Your task to perform on an android device: turn vacation reply on in the gmail app Image 0: 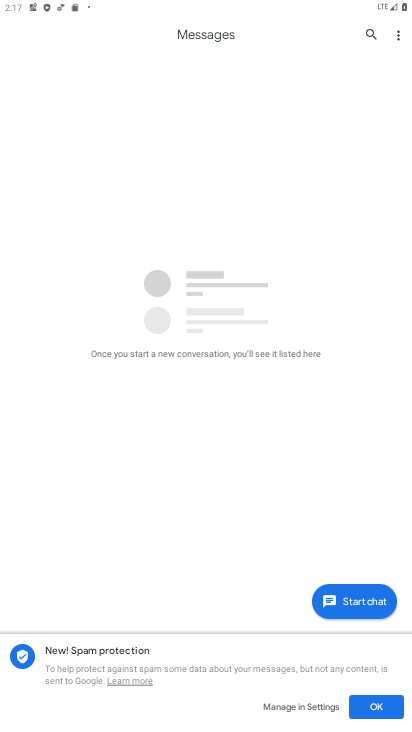
Step 0: press home button
Your task to perform on an android device: turn vacation reply on in the gmail app Image 1: 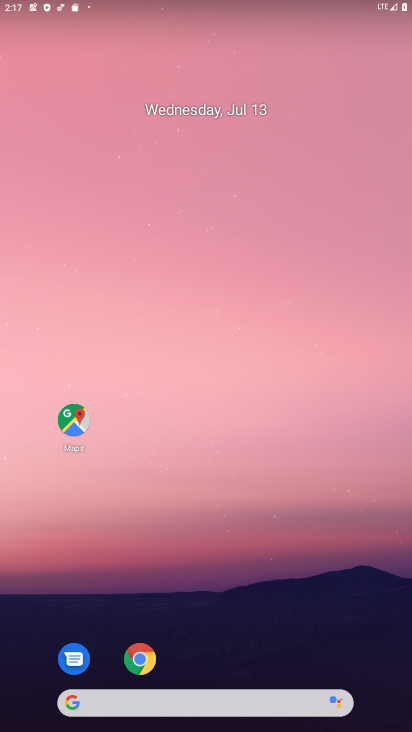
Step 1: drag from (273, 662) to (264, 451)
Your task to perform on an android device: turn vacation reply on in the gmail app Image 2: 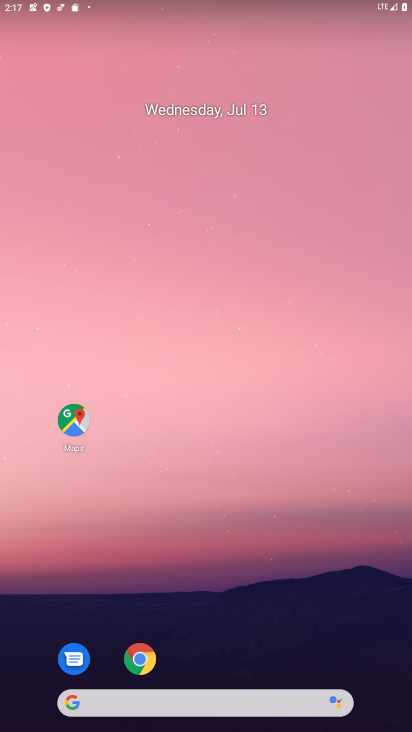
Step 2: drag from (241, 688) to (224, 46)
Your task to perform on an android device: turn vacation reply on in the gmail app Image 3: 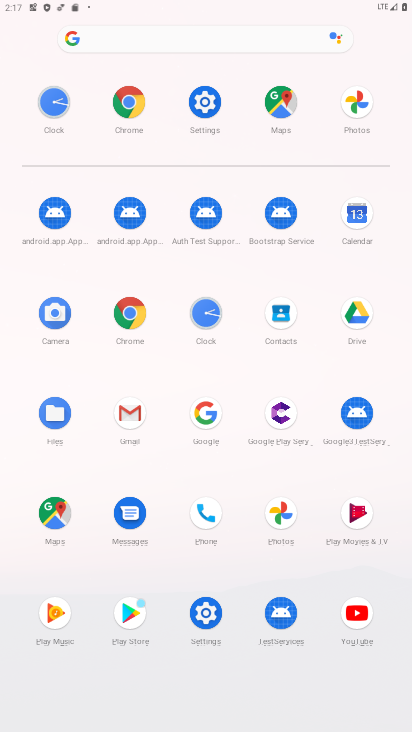
Step 3: click (127, 411)
Your task to perform on an android device: turn vacation reply on in the gmail app Image 4: 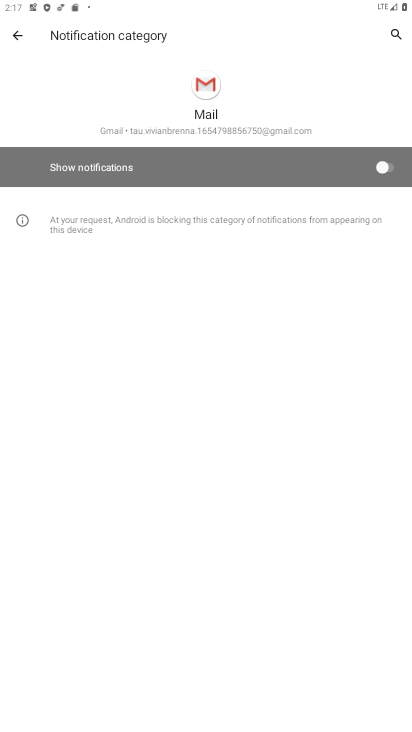
Step 4: press back button
Your task to perform on an android device: turn vacation reply on in the gmail app Image 5: 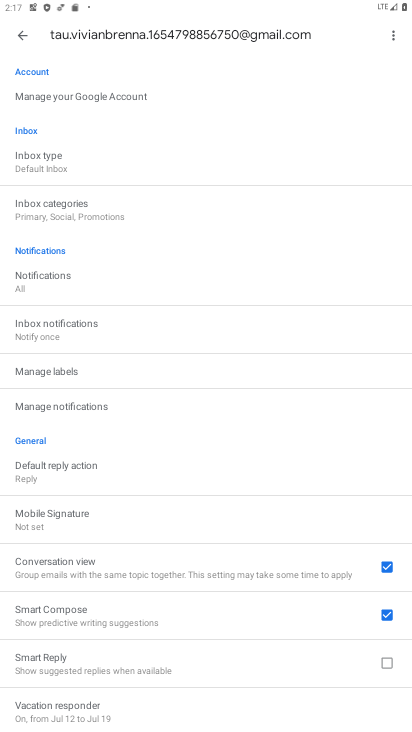
Step 5: drag from (313, 662) to (315, 577)
Your task to perform on an android device: turn vacation reply on in the gmail app Image 6: 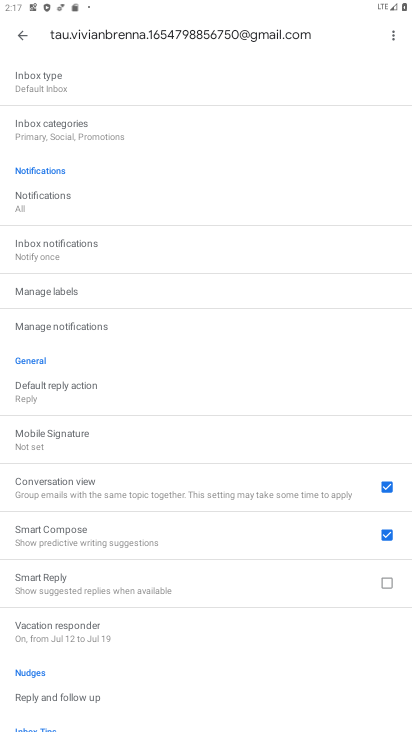
Step 6: click (66, 630)
Your task to perform on an android device: turn vacation reply on in the gmail app Image 7: 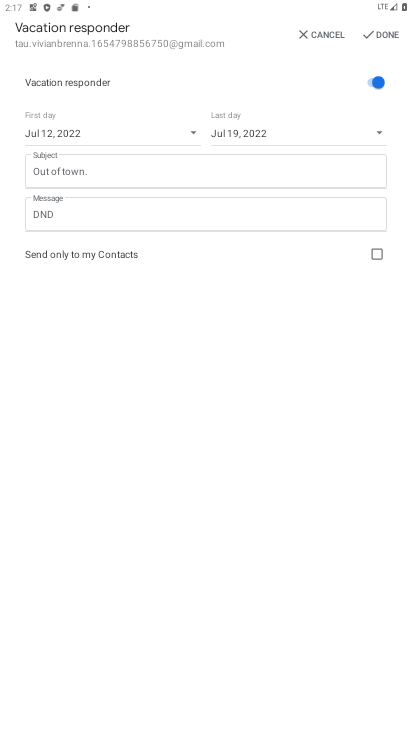
Step 7: task complete